Your task to perform on an android device: Open eBay Image 0: 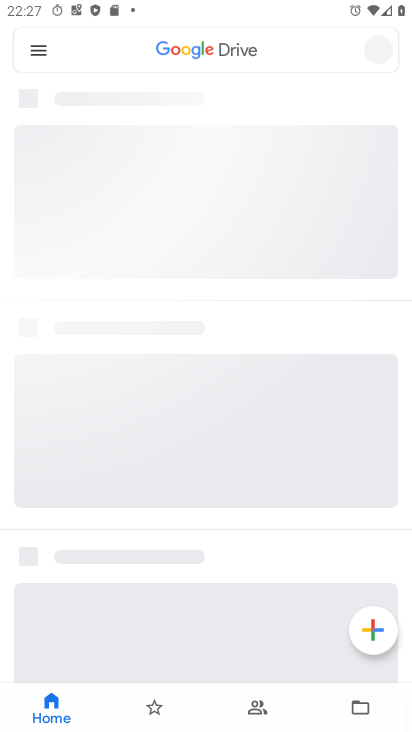
Step 0: drag from (261, 611) to (259, 37)
Your task to perform on an android device: Open eBay Image 1: 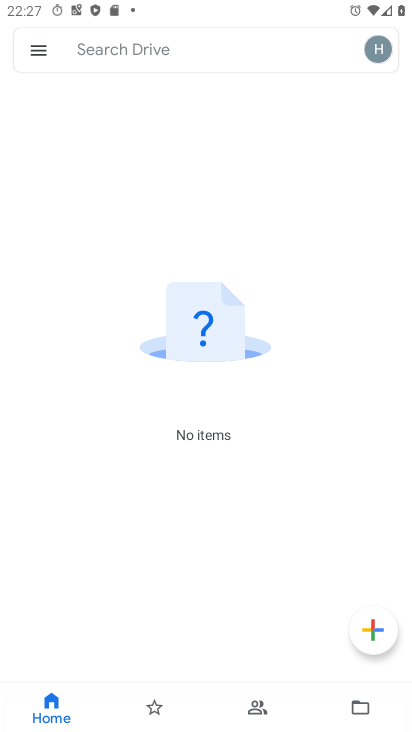
Step 1: press back button
Your task to perform on an android device: Open eBay Image 2: 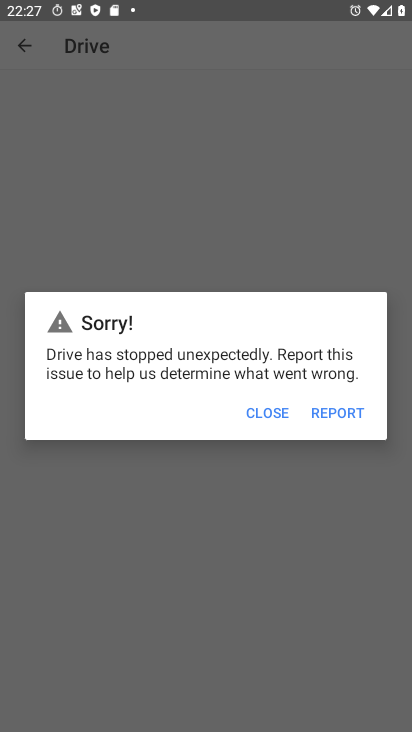
Step 2: press home button
Your task to perform on an android device: Open eBay Image 3: 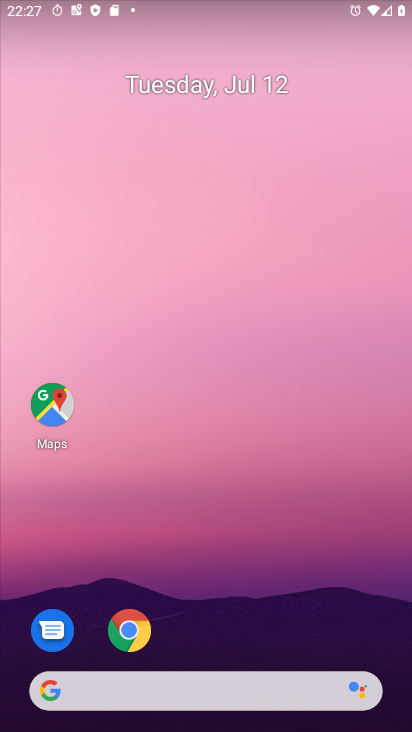
Step 3: click (132, 641)
Your task to perform on an android device: Open eBay Image 4: 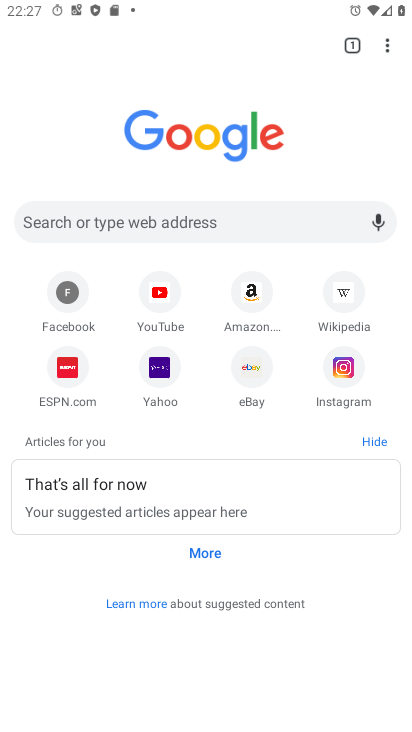
Step 4: click (253, 368)
Your task to perform on an android device: Open eBay Image 5: 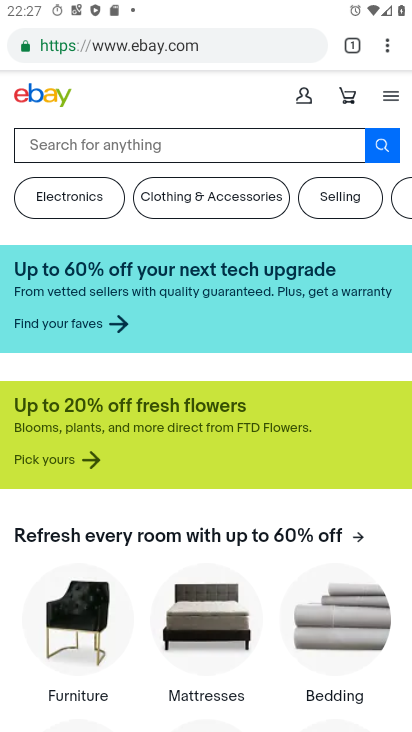
Step 5: task complete